Your task to perform on an android device: turn on wifi Image 0: 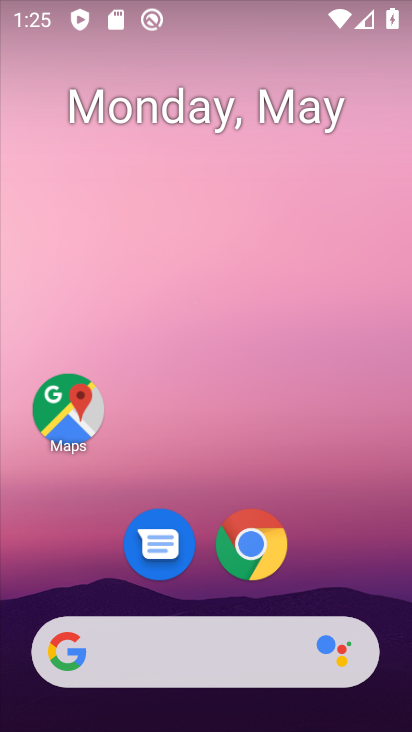
Step 0: drag from (357, 584) to (380, 281)
Your task to perform on an android device: turn on wifi Image 1: 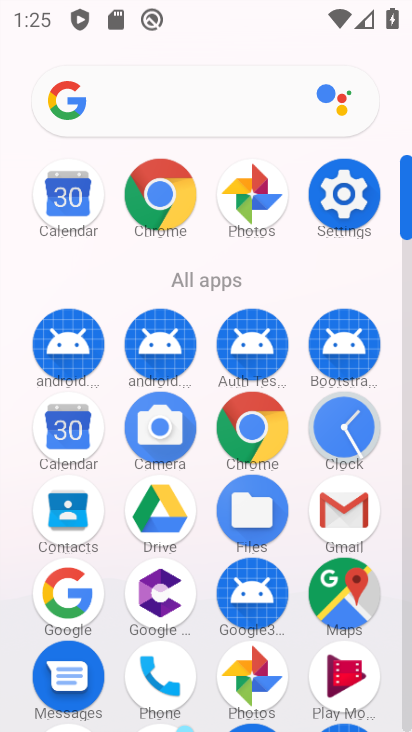
Step 1: click (352, 220)
Your task to perform on an android device: turn on wifi Image 2: 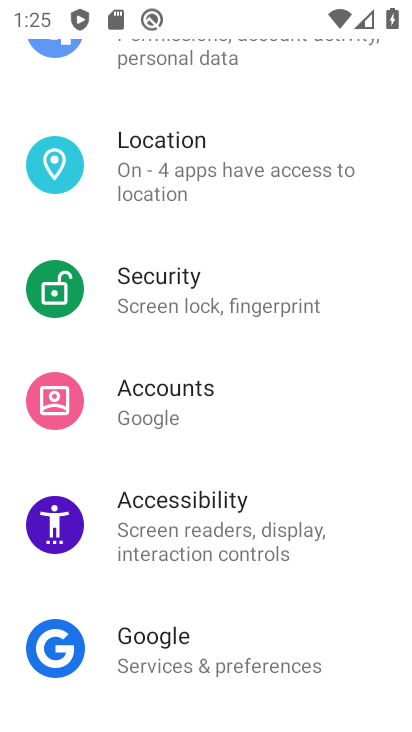
Step 2: drag from (353, 445) to (352, 503)
Your task to perform on an android device: turn on wifi Image 3: 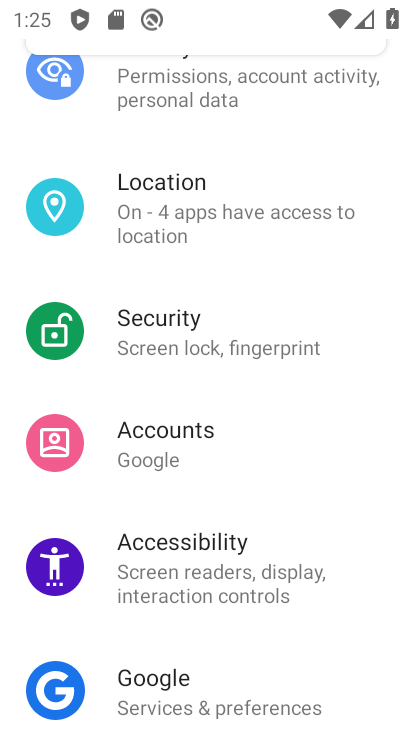
Step 3: drag from (346, 403) to (349, 479)
Your task to perform on an android device: turn on wifi Image 4: 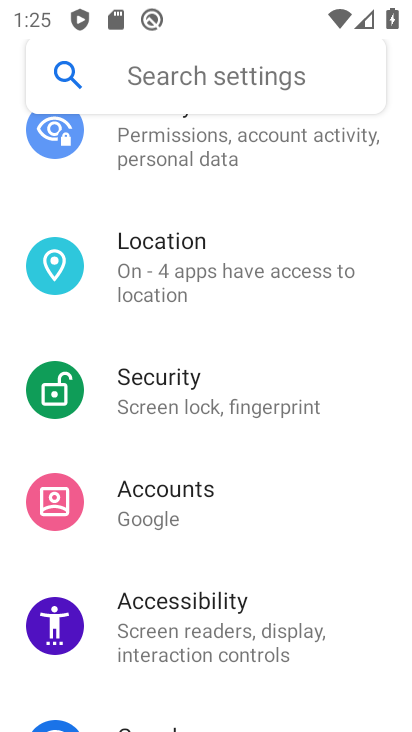
Step 4: drag from (344, 412) to (341, 459)
Your task to perform on an android device: turn on wifi Image 5: 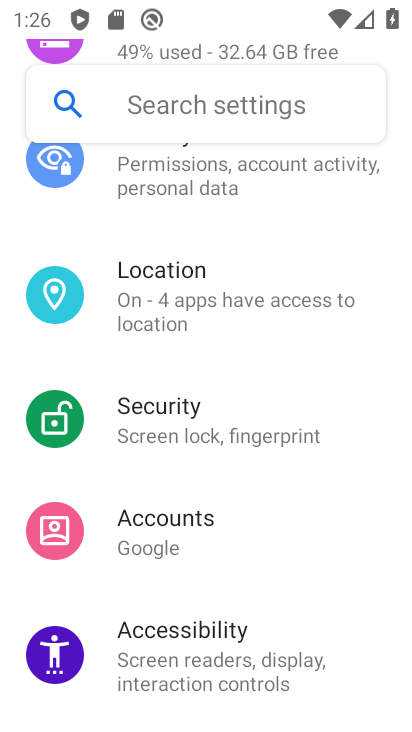
Step 5: drag from (328, 395) to (324, 490)
Your task to perform on an android device: turn on wifi Image 6: 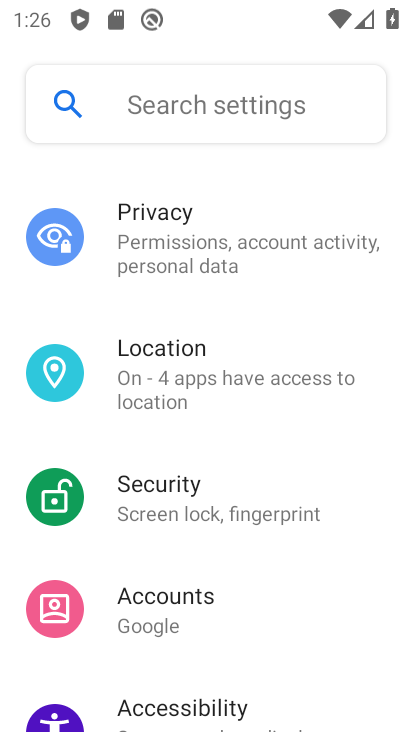
Step 6: drag from (334, 406) to (332, 516)
Your task to perform on an android device: turn on wifi Image 7: 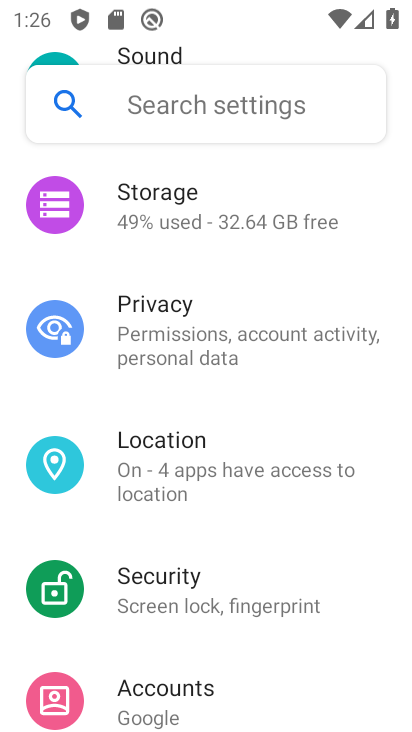
Step 7: drag from (345, 391) to (348, 532)
Your task to perform on an android device: turn on wifi Image 8: 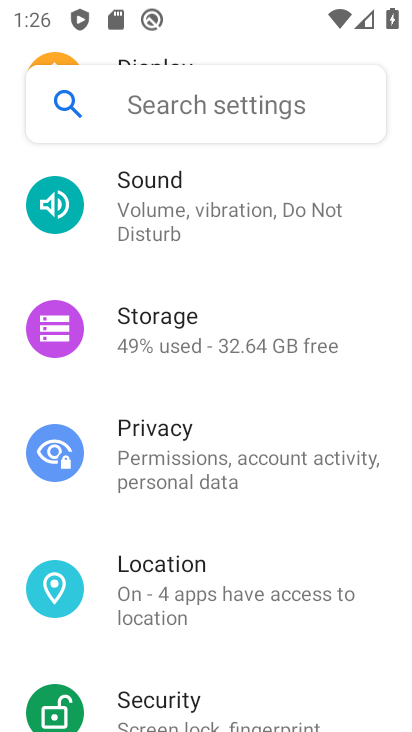
Step 8: drag from (341, 396) to (341, 550)
Your task to perform on an android device: turn on wifi Image 9: 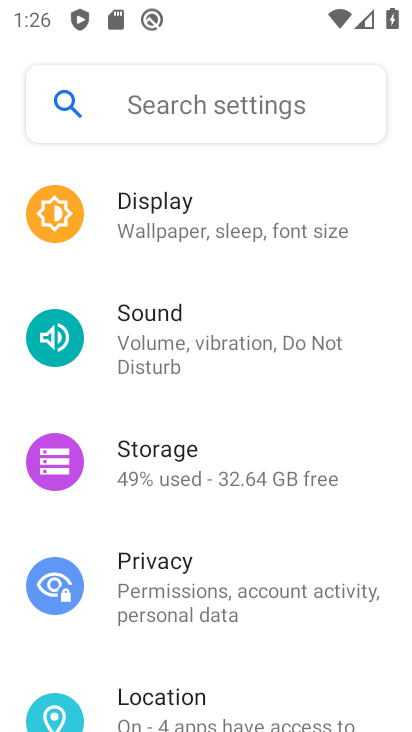
Step 9: drag from (344, 399) to (338, 525)
Your task to perform on an android device: turn on wifi Image 10: 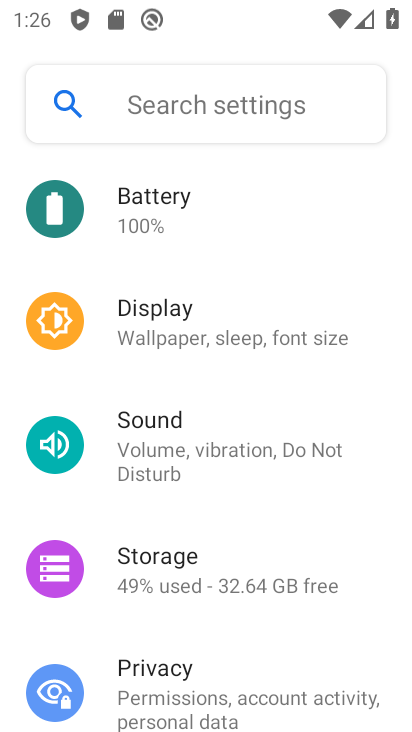
Step 10: drag from (345, 403) to (353, 524)
Your task to perform on an android device: turn on wifi Image 11: 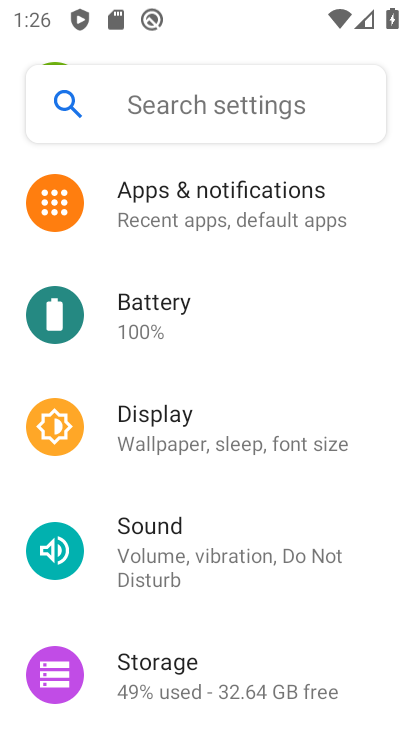
Step 11: drag from (350, 388) to (354, 516)
Your task to perform on an android device: turn on wifi Image 12: 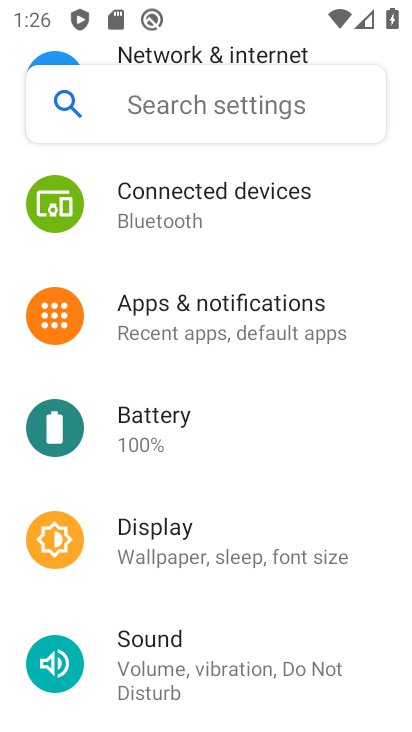
Step 12: drag from (342, 397) to (339, 513)
Your task to perform on an android device: turn on wifi Image 13: 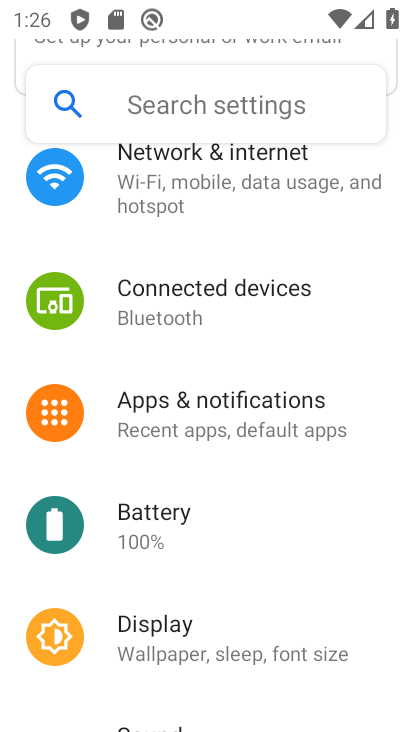
Step 13: drag from (336, 354) to (332, 513)
Your task to perform on an android device: turn on wifi Image 14: 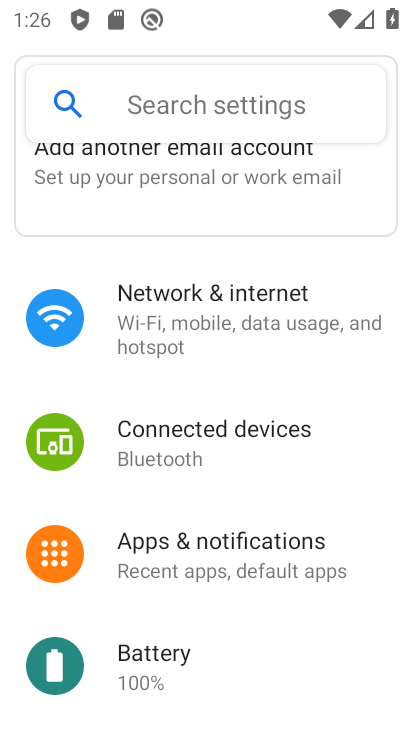
Step 14: drag from (328, 373) to (324, 517)
Your task to perform on an android device: turn on wifi Image 15: 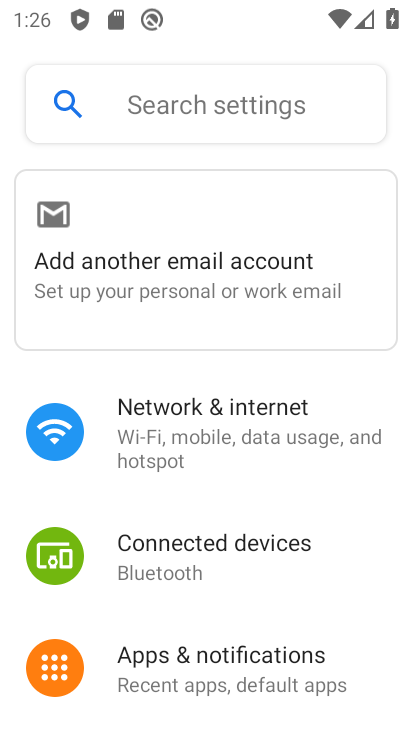
Step 15: drag from (336, 378) to (340, 506)
Your task to perform on an android device: turn on wifi Image 16: 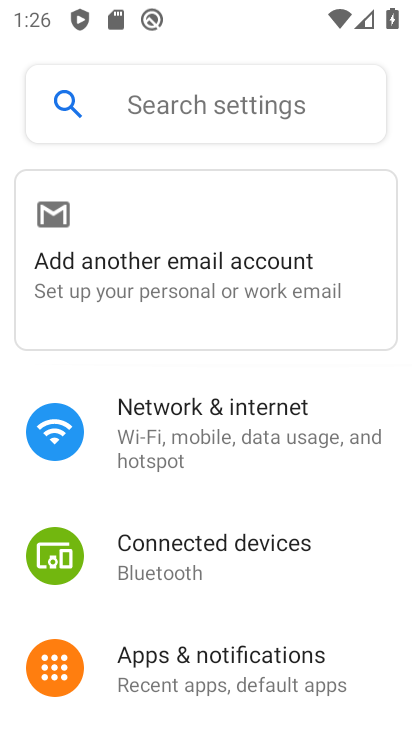
Step 16: click (322, 413)
Your task to perform on an android device: turn on wifi Image 17: 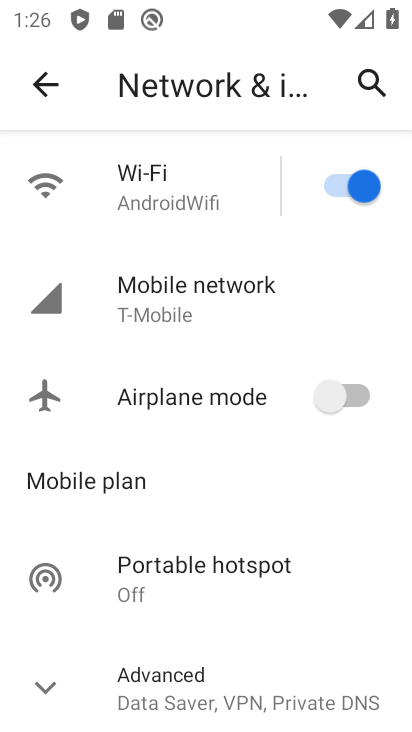
Step 17: task complete